Your task to perform on an android device: make emails show in primary in the gmail app Image 0: 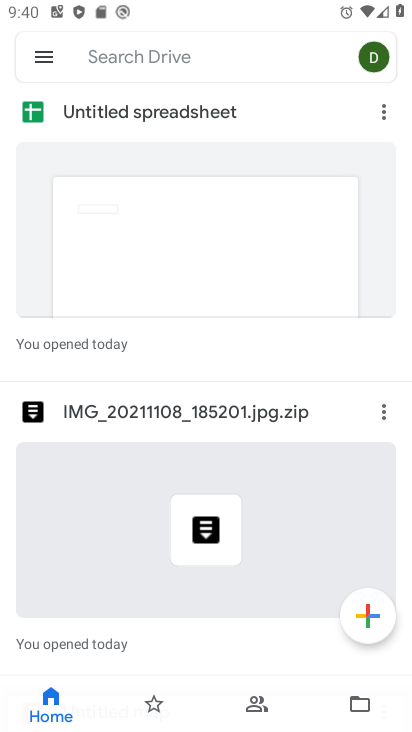
Step 0: press home button
Your task to perform on an android device: make emails show in primary in the gmail app Image 1: 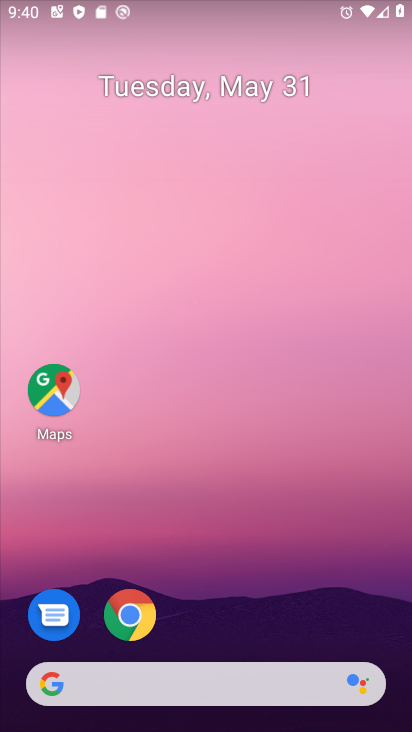
Step 1: drag from (386, 622) to (352, 76)
Your task to perform on an android device: make emails show in primary in the gmail app Image 2: 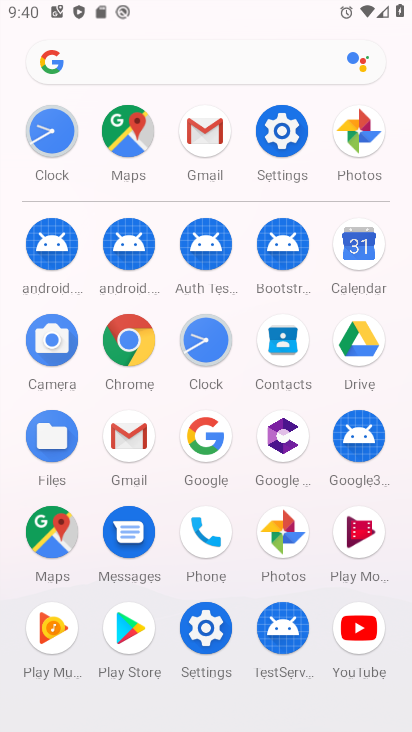
Step 2: click (126, 437)
Your task to perform on an android device: make emails show in primary in the gmail app Image 3: 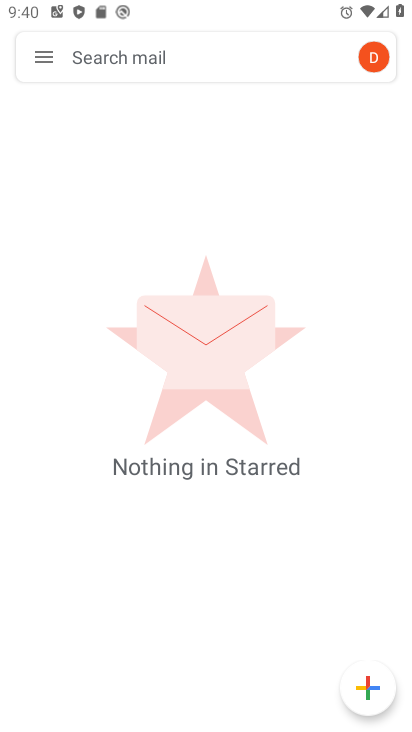
Step 3: click (42, 58)
Your task to perform on an android device: make emails show in primary in the gmail app Image 4: 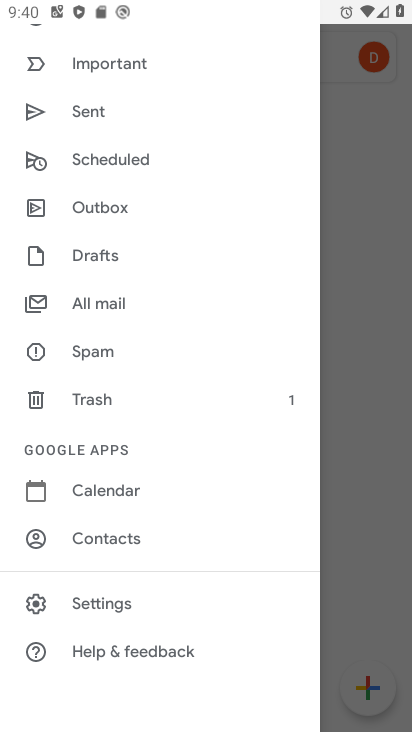
Step 4: click (103, 606)
Your task to perform on an android device: make emails show in primary in the gmail app Image 5: 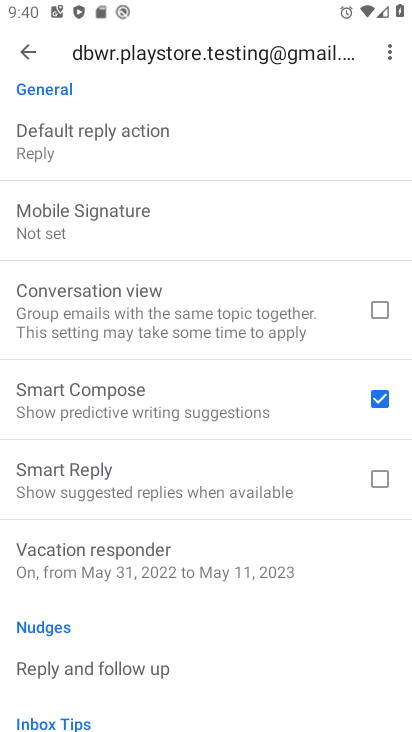
Step 5: drag from (336, 116) to (285, 564)
Your task to perform on an android device: make emails show in primary in the gmail app Image 6: 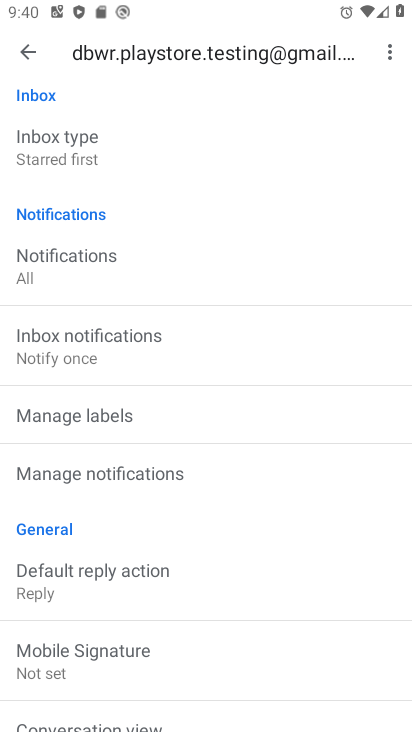
Step 6: drag from (280, 131) to (234, 459)
Your task to perform on an android device: make emails show in primary in the gmail app Image 7: 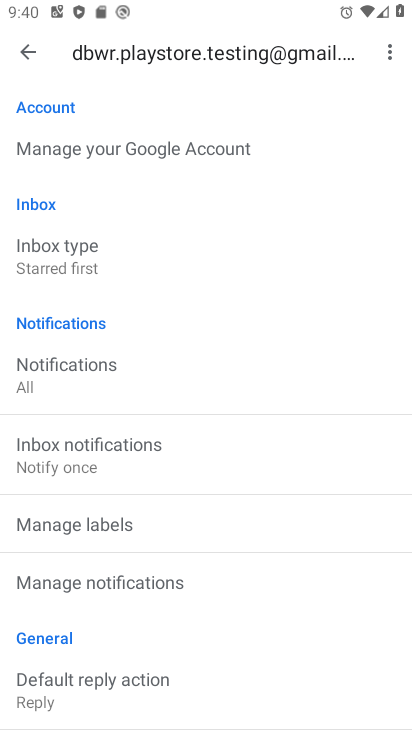
Step 7: click (59, 244)
Your task to perform on an android device: make emails show in primary in the gmail app Image 8: 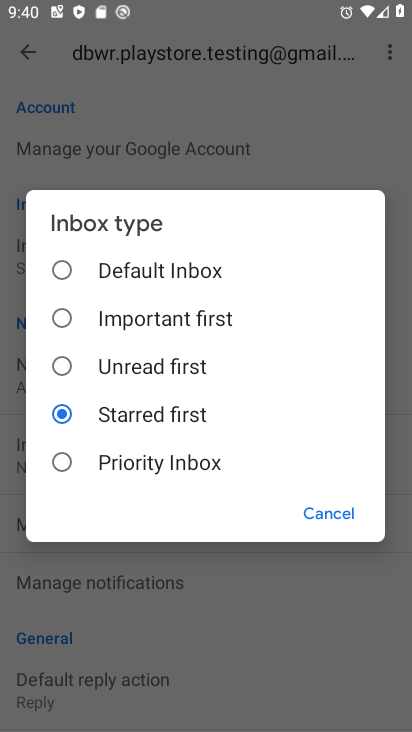
Step 8: click (63, 263)
Your task to perform on an android device: make emails show in primary in the gmail app Image 9: 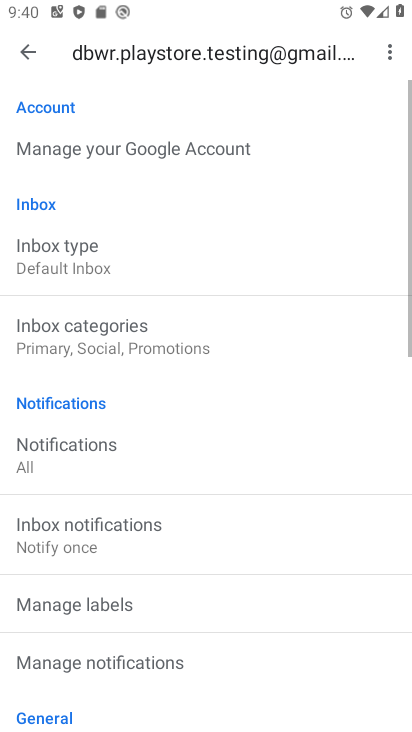
Step 9: click (77, 350)
Your task to perform on an android device: make emails show in primary in the gmail app Image 10: 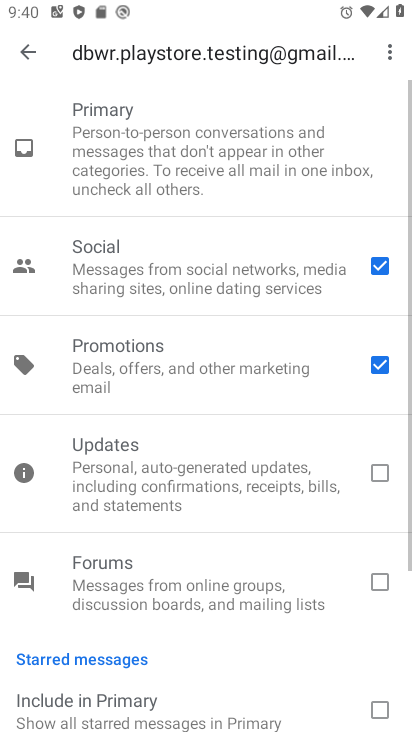
Step 10: click (379, 264)
Your task to perform on an android device: make emails show in primary in the gmail app Image 11: 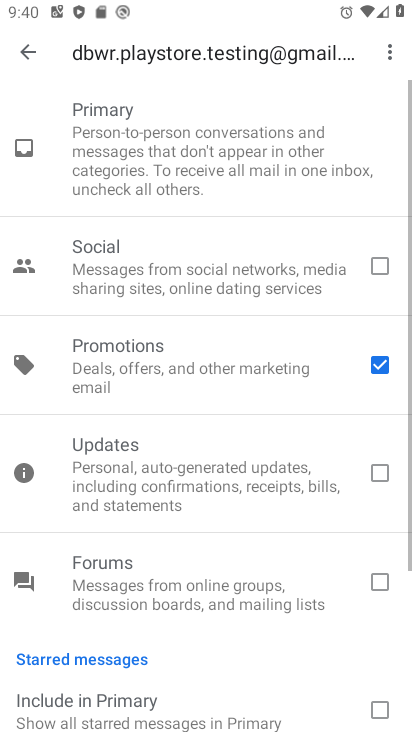
Step 11: click (382, 367)
Your task to perform on an android device: make emails show in primary in the gmail app Image 12: 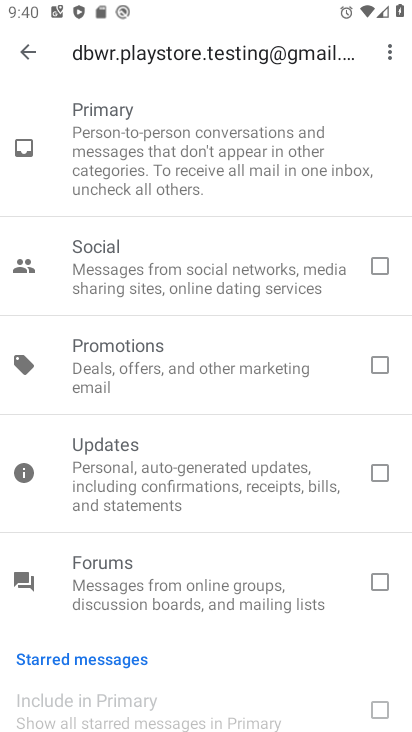
Step 12: task complete